Your task to perform on an android device: make emails show in primary in the gmail app Image 0: 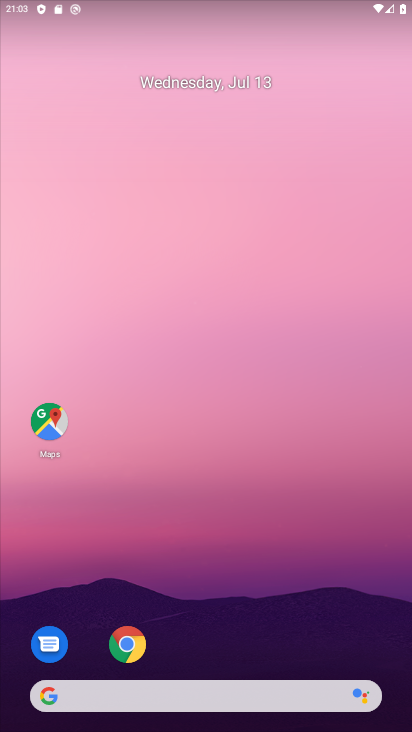
Step 0: drag from (241, 657) to (202, 225)
Your task to perform on an android device: make emails show in primary in the gmail app Image 1: 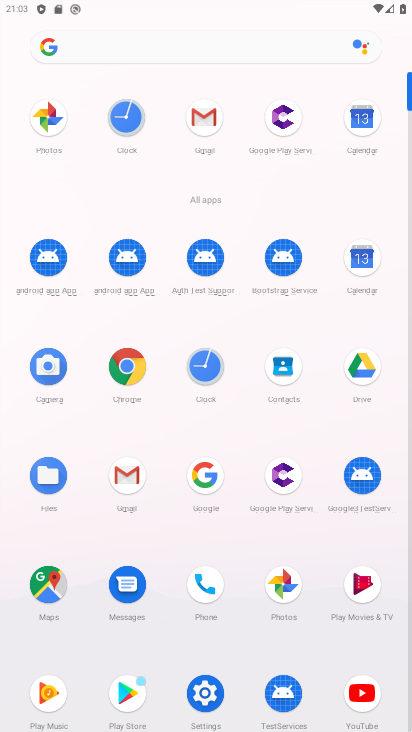
Step 1: click (210, 134)
Your task to perform on an android device: make emails show in primary in the gmail app Image 2: 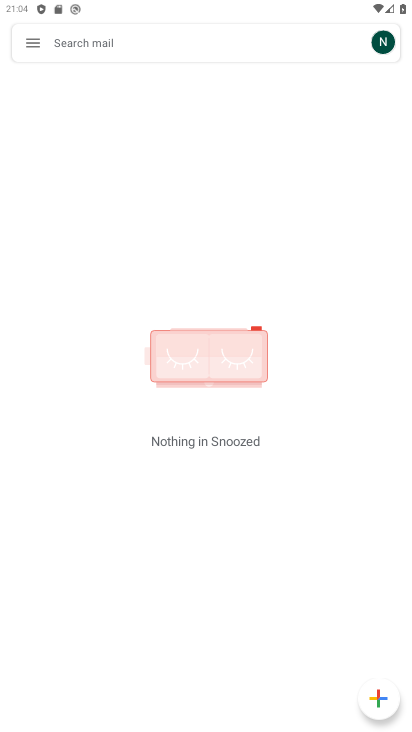
Step 2: click (25, 52)
Your task to perform on an android device: make emails show in primary in the gmail app Image 3: 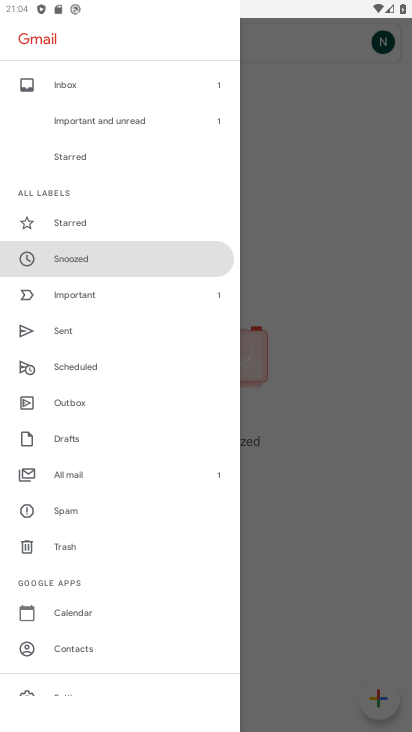
Step 3: drag from (101, 673) to (72, 328)
Your task to perform on an android device: make emails show in primary in the gmail app Image 4: 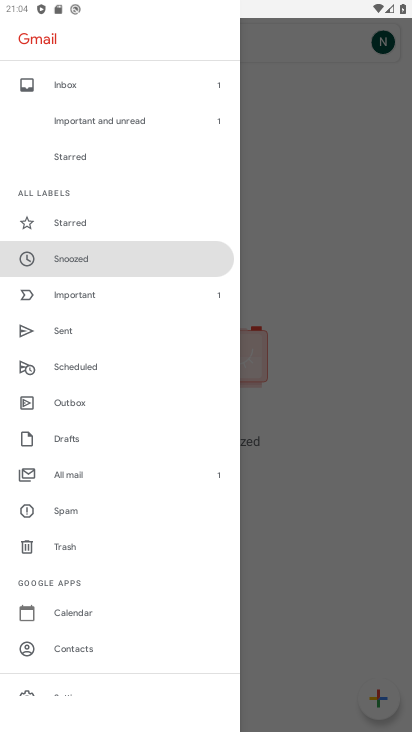
Step 4: drag from (80, 667) to (61, 414)
Your task to perform on an android device: make emails show in primary in the gmail app Image 5: 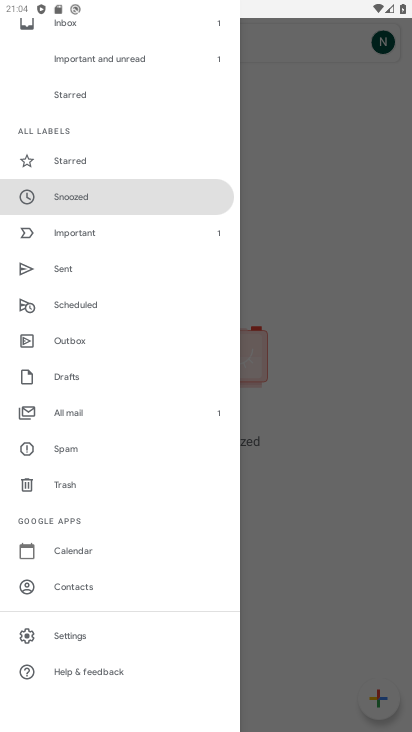
Step 5: click (94, 640)
Your task to perform on an android device: make emails show in primary in the gmail app Image 6: 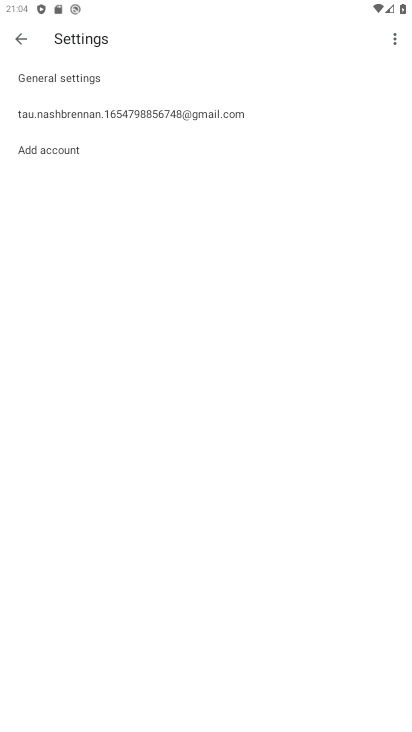
Step 6: click (131, 123)
Your task to perform on an android device: make emails show in primary in the gmail app Image 7: 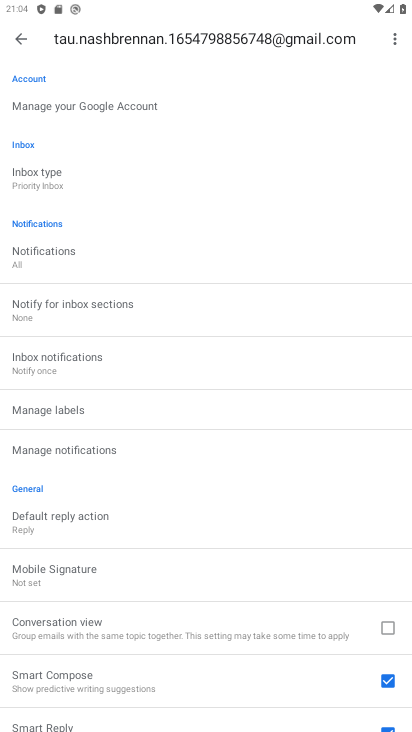
Step 7: click (80, 165)
Your task to perform on an android device: make emails show in primary in the gmail app Image 8: 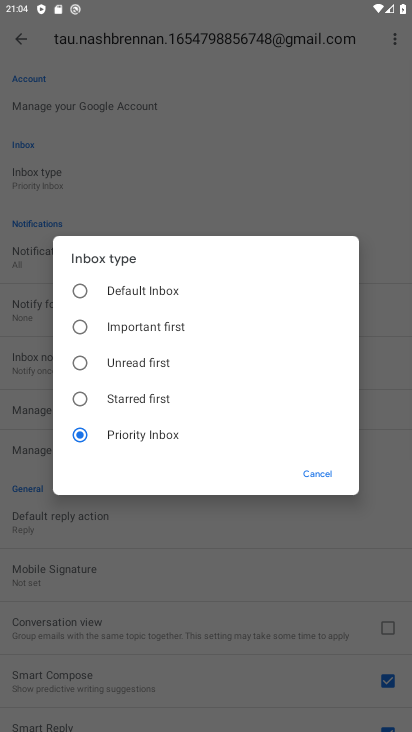
Step 8: click (136, 288)
Your task to perform on an android device: make emails show in primary in the gmail app Image 9: 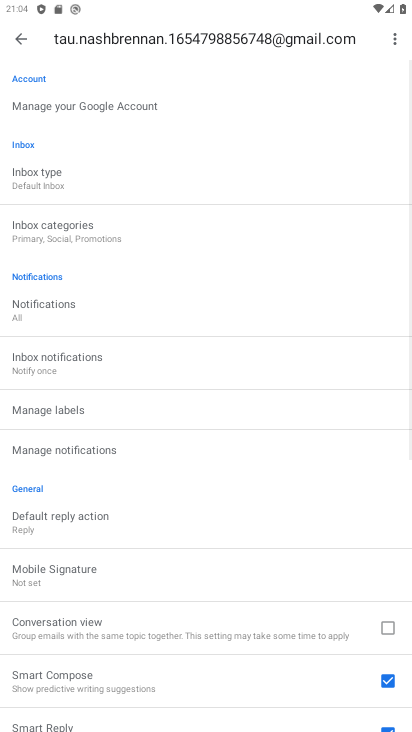
Step 9: task complete